Your task to perform on an android device: change the clock display to analog Image 0: 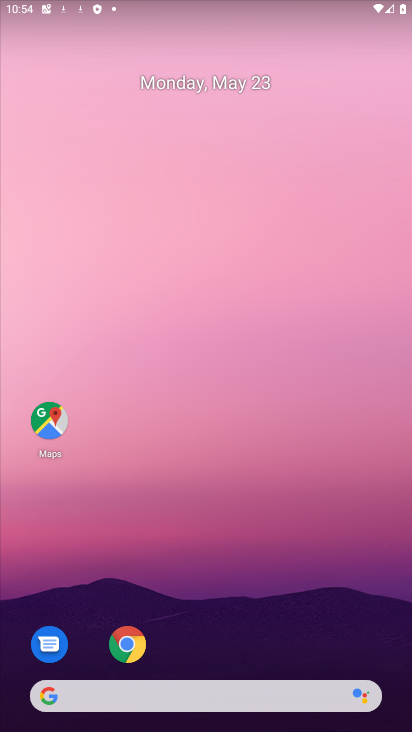
Step 0: drag from (274, 716) to (229, 192)
Your task to perform on an android device: change the clock display to analog Image 1: 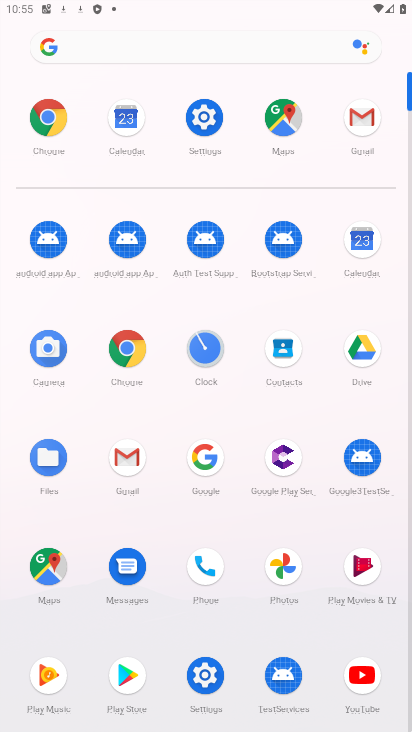
Step 1: click (199, 360)
Your task to perform on an android device: change the clock display to analog Image 2: 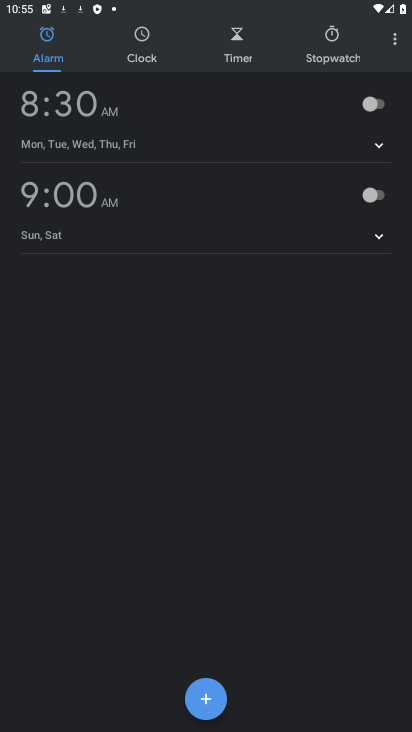
Step 2: click (389, 49)
Your task to perform on an android device: change the clock display to analog Image 3: 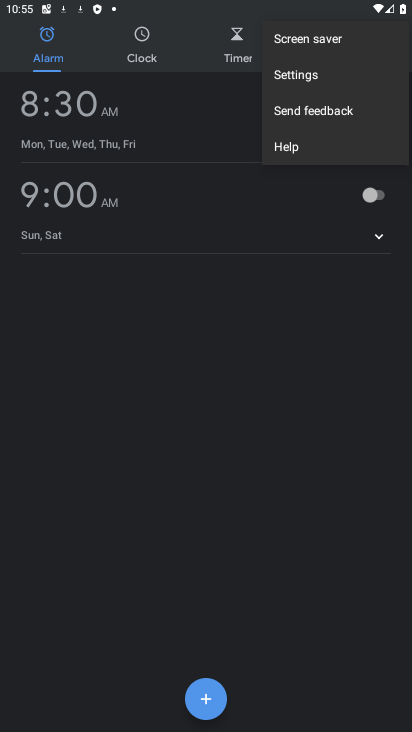
Step 3: click (312, 83)
Your task to perform on an android device: change the clock display to analog Image 4: 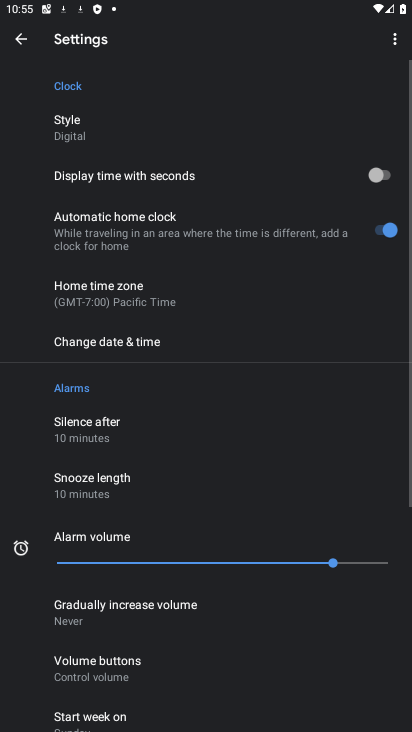
Step 4: click (179, 129)
Your task to perform on an android device: change the clock display to analog Image 5: 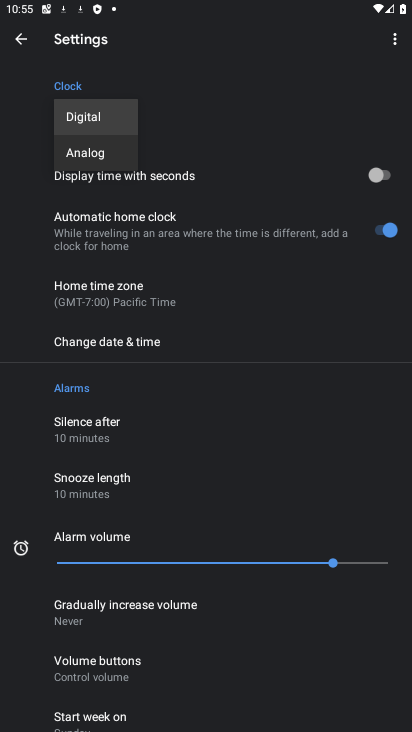
Step 5: click (92, 148)
Your task to perform on an android device: change the clock display to analog Image 6: 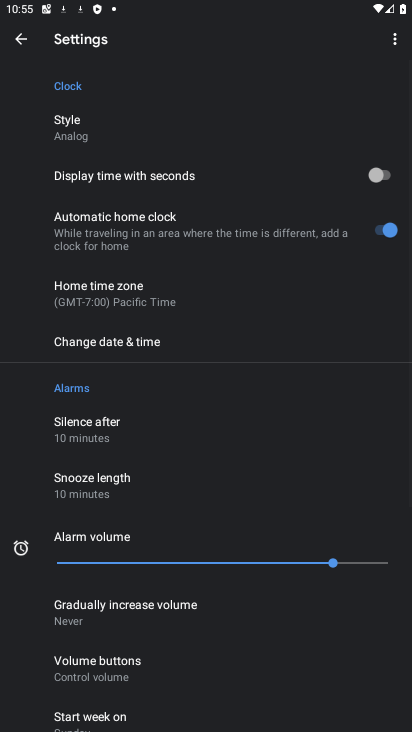
Step 6: task complete